Your task to perform on an android device: install app "Speedtest by Ookla" Image 0: 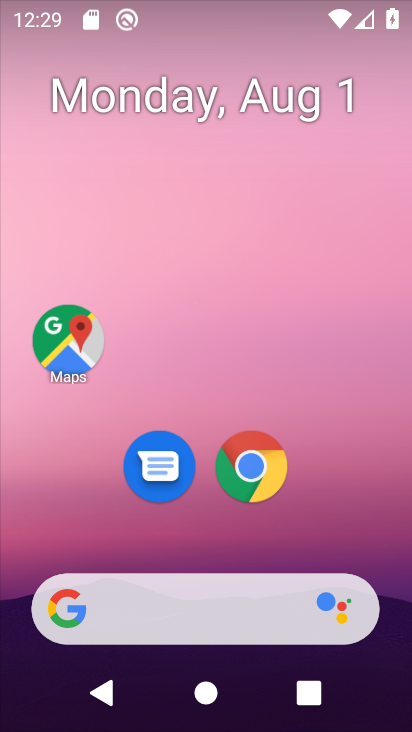
Step 0: drag from (223, 518) to (396, 485)
Your task to perform on an android device: install app "Speedtest by Ookla" Image 1: 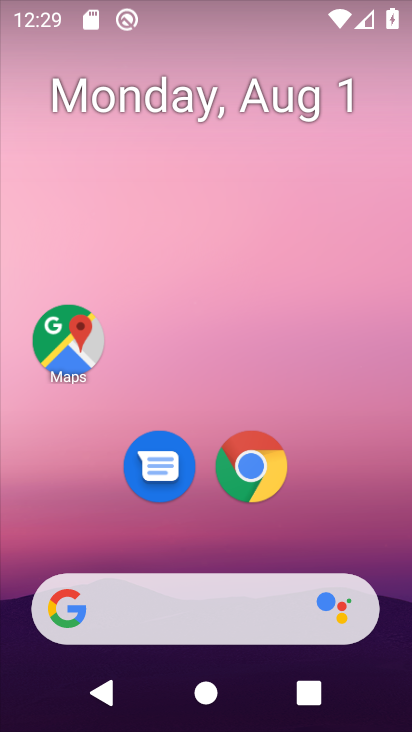
Step 1: drag from (195, 554) to (126, 3)
Your task to perform on an android device: install app "Speedtest by Ookla" Image 2: 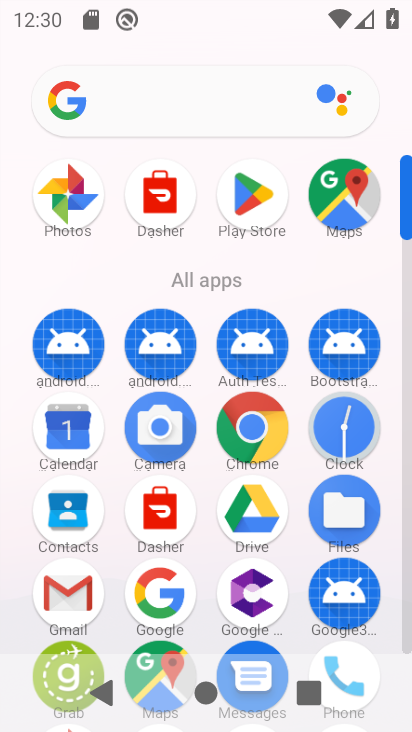
Step 2: click (257, 207)
Your task to perform on an android device: install app "Speedtest by Ookla" Image 3: 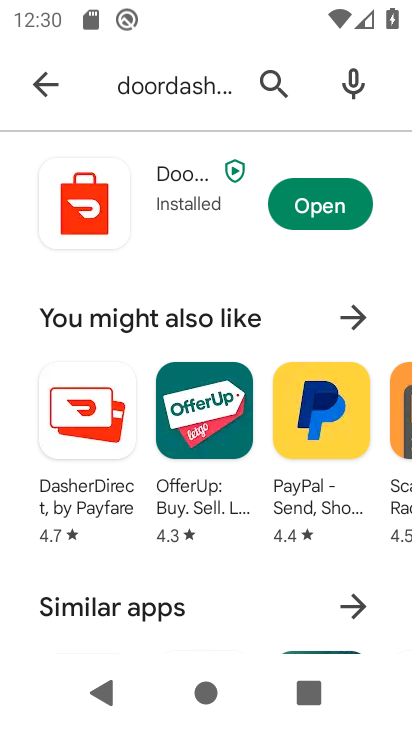
Step 3: click (183, 98)
Your task to perform on an android device: install app "Speedtest by Ookla" Image 4: 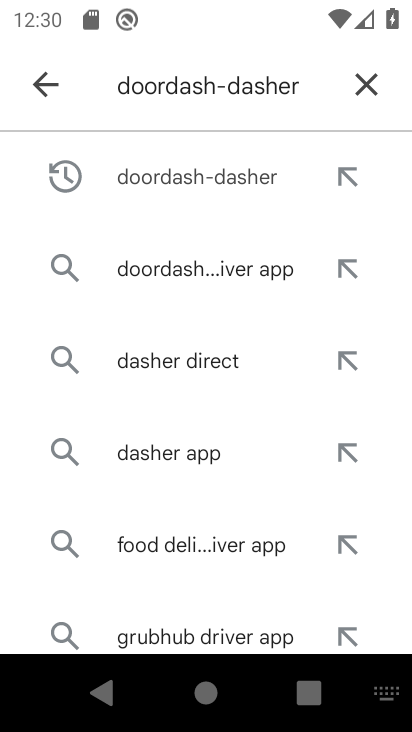
Step 4: click (355, 75)
Your task to perform on an android device: install app "Speedtest by Ookla" Image 5: 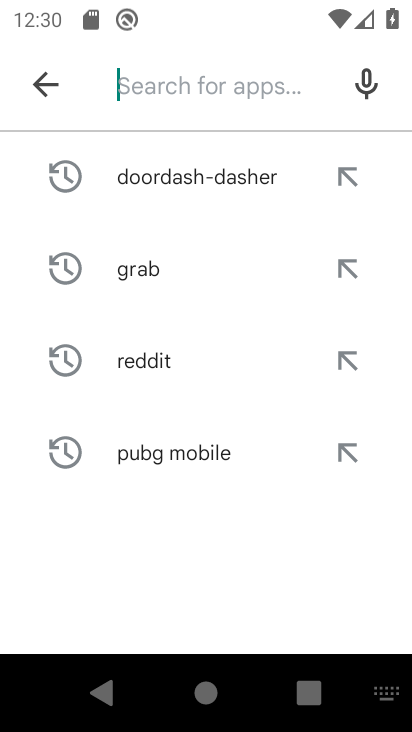
Step 5: type "speedtest by Ookla"
Your task to perform on an android device: install app "Speedtest by Ookla" Image 6: 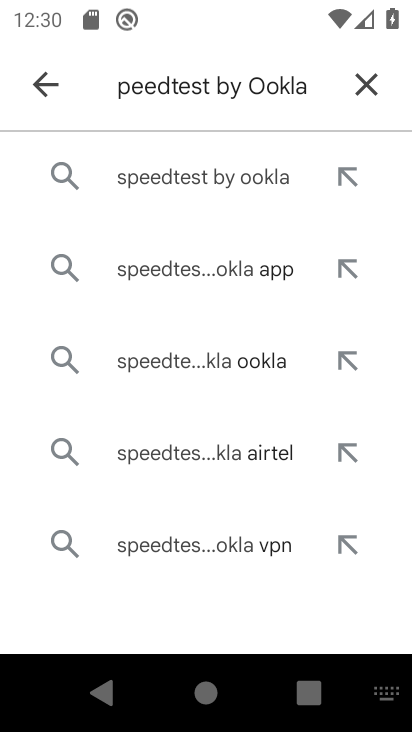
Step 6: click (191, 194)
Your task to perform on an android device: install app "Speedtest by Ookla" Image 7: 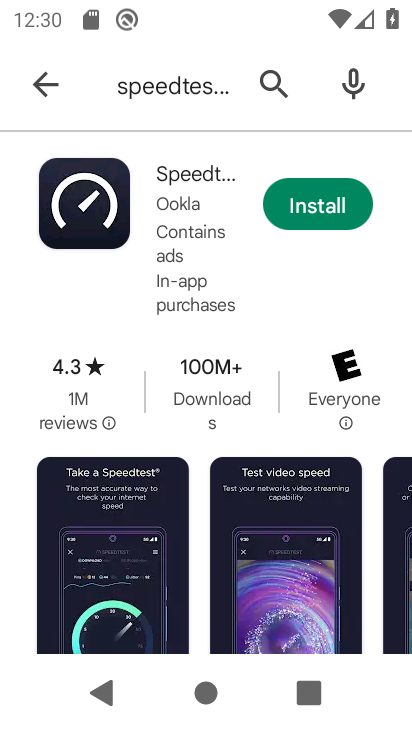
Step 7: click (321, 191)
Your task to perform on an android device: install app "Speedtest by Ookla" Image 8: 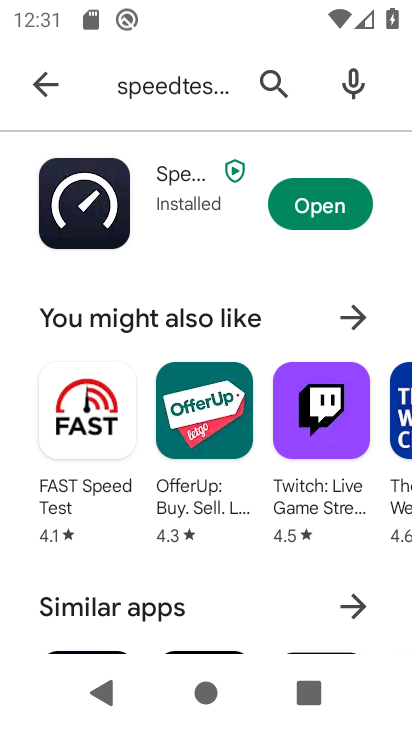
Step 8: task complete